Your task to perform on an android device: Open the web browser Image 0: 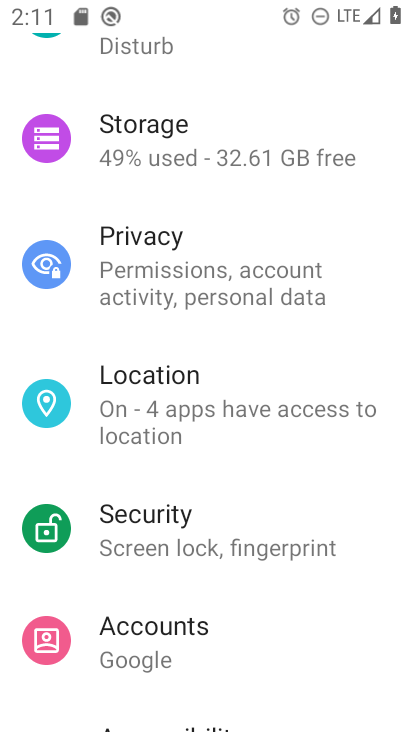
Step 0: press home button
Your task to perform on an android device: Open the web browser Image 1: 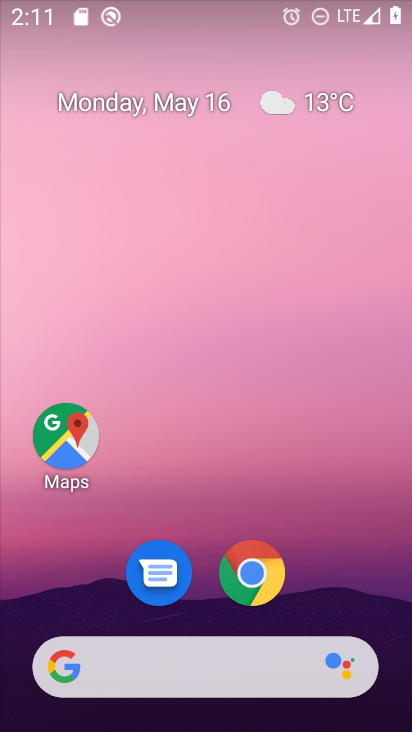
Step 1: click (255, 595)
Your task to perform on an android device: Open the web browser Image 2: 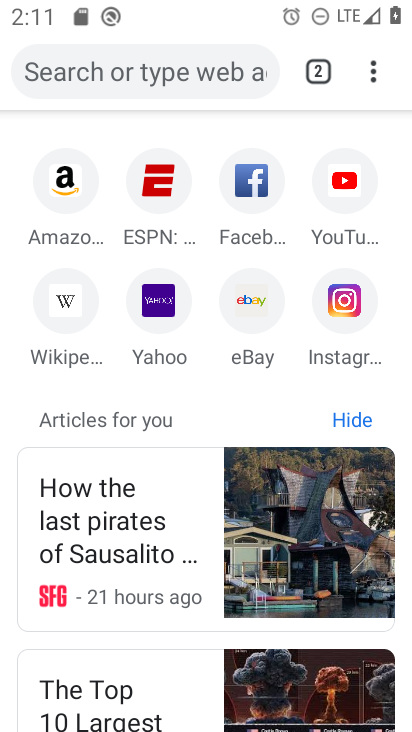
Step 2: task complete